Your task to perform on an android device: find snoozed emails in the gmail app Image 0: 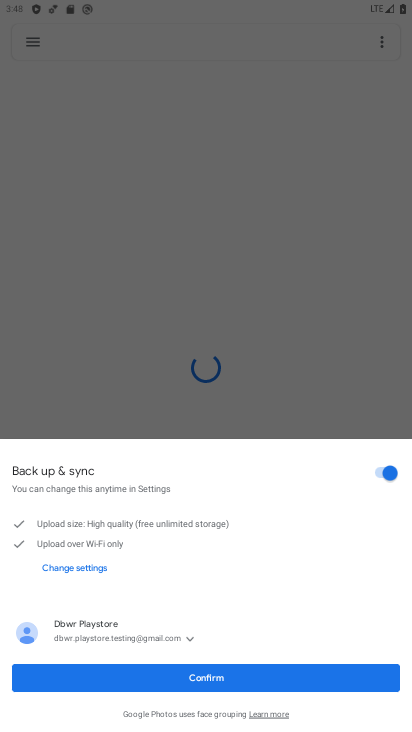
Step 0: press home button
Your task to perform on an android device: find snoozed emails in the gmail app Image 1: 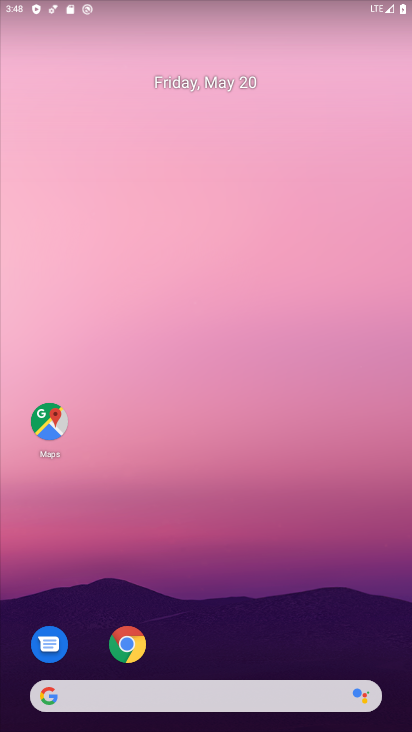
Step 1: drag from (205, 715) to (246, 287)
Your task to perform on an android device: find snoozed emails in the gmail app Image 2: 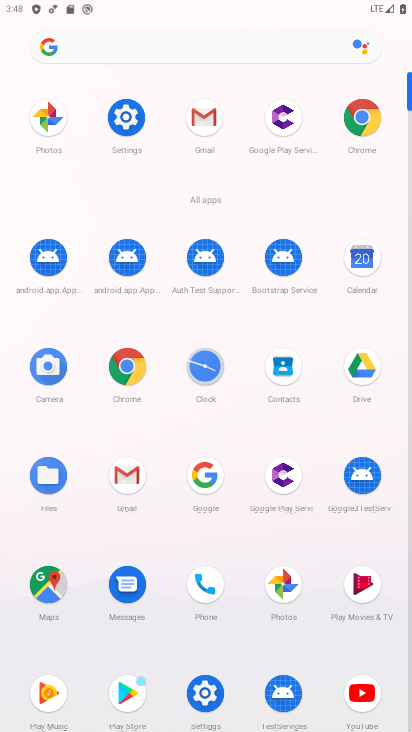
Step 2: click (211, 137)
Your task to perform on an android device: find snoozed emails in the gmail app Image 3: 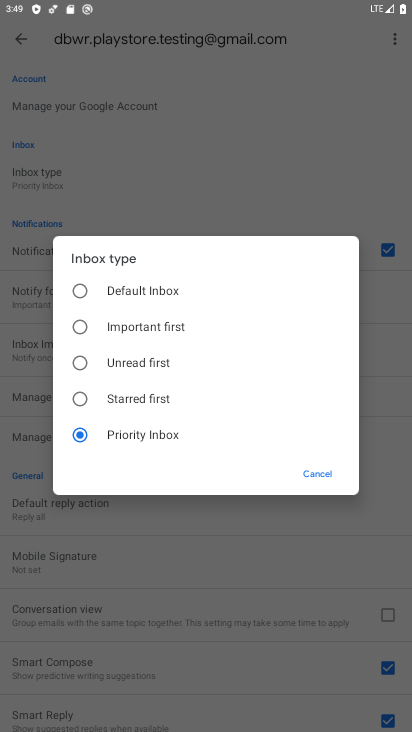
Step 3: click (315, 466)
Your task to perform on an android device: find snoozed emails in the gmail app Image 4: 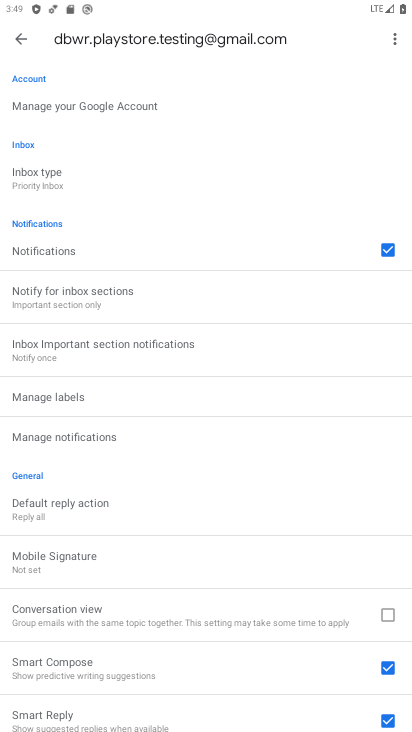
Step 4: click (20, 54)
Your task to perform on an android device: find snoozed emails in the gmail app Image 5: 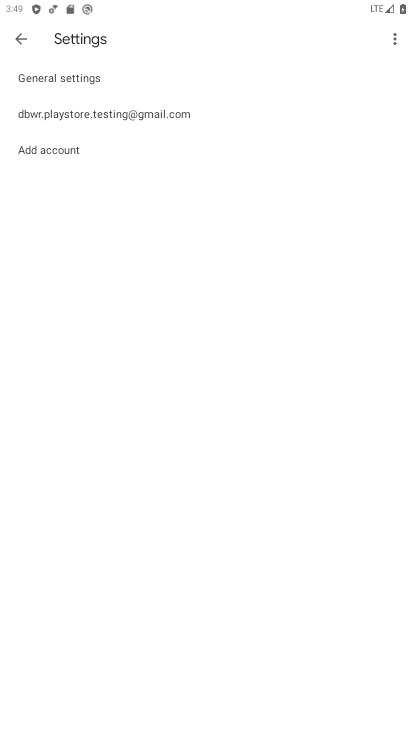
Step 5: click (18, 30)
Your task to perform on an android device: find snoozed emails in the gmail app Image 6: 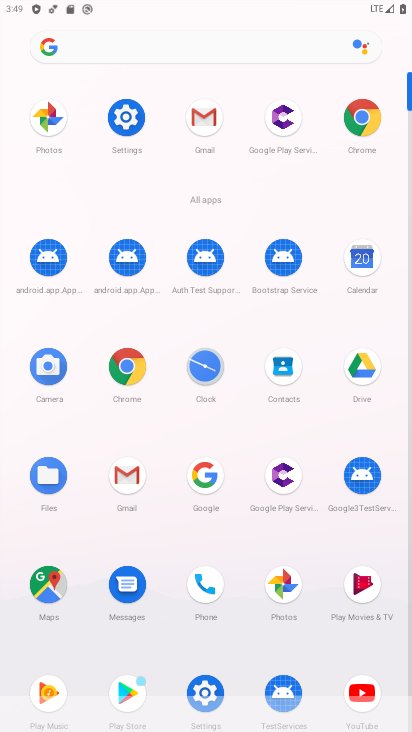
Step 6: click (209, 115)
Your task to perform on an android device: find snoozed emails in the gmail app Image 7: 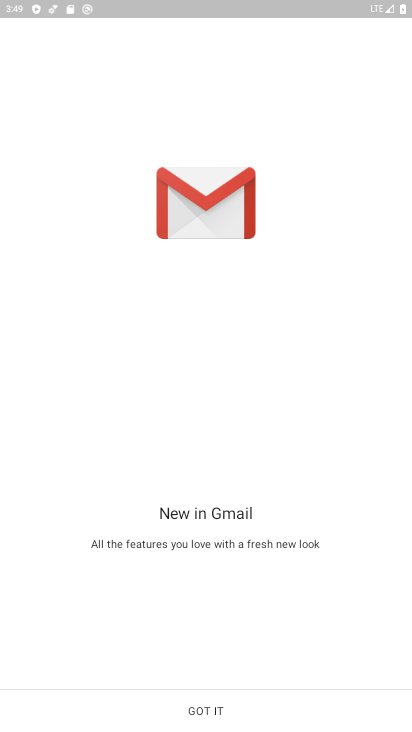
Step 7: click (243, 709)
Your task to perform on an android device: find snoozed emails in the gmail app Image 8: 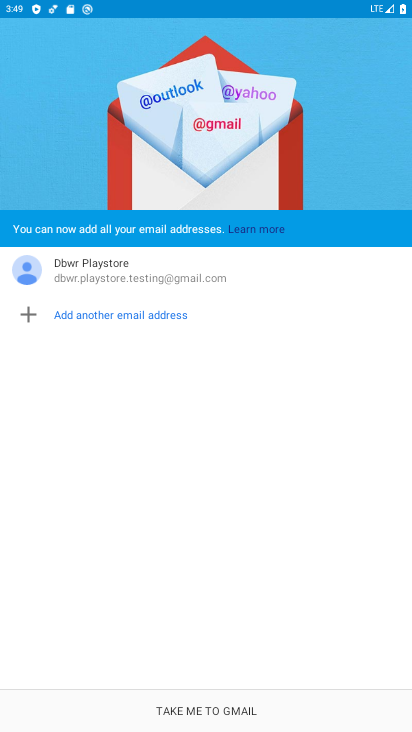
Step 8: click (240, 707)
Your task to perform on an android device: find snoozed emails in the gmail app Image 9: 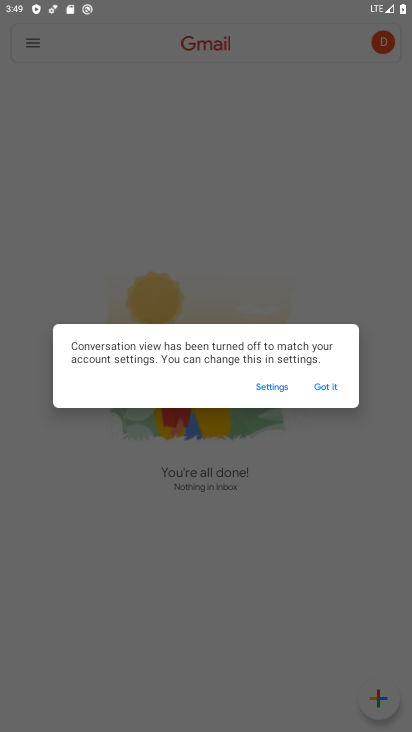
Step 9: click (322, 394)
Your task to perform on an android device: find snoozed emails in the gmail app Image 10: 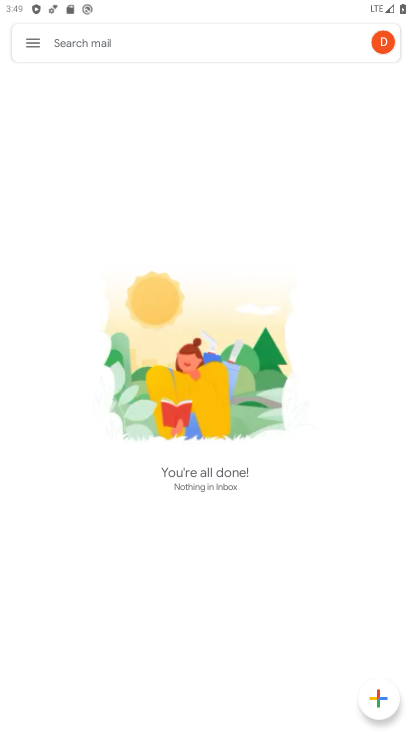
Step 10: click (40, 34)
Your task to perform on an android device: find snoozed emails in the gmail app Image 11: 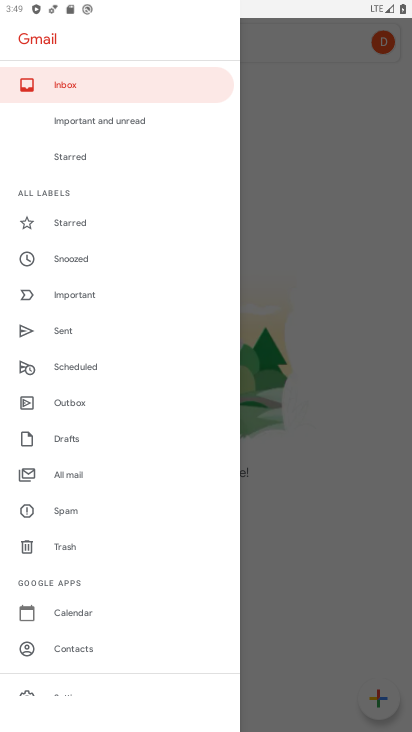
Step 11: click (87, 264)
Your task to perform on an android device: find snoozed emails in the gmail app Image 12: 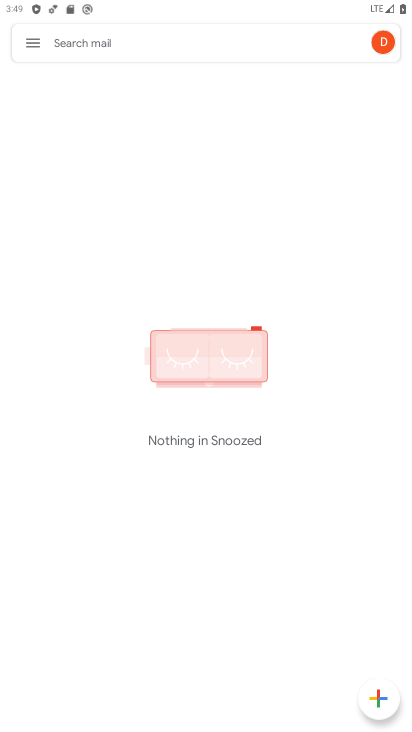
Step 12: task complete